Your task to perform on an android device: check battery use Image 0: 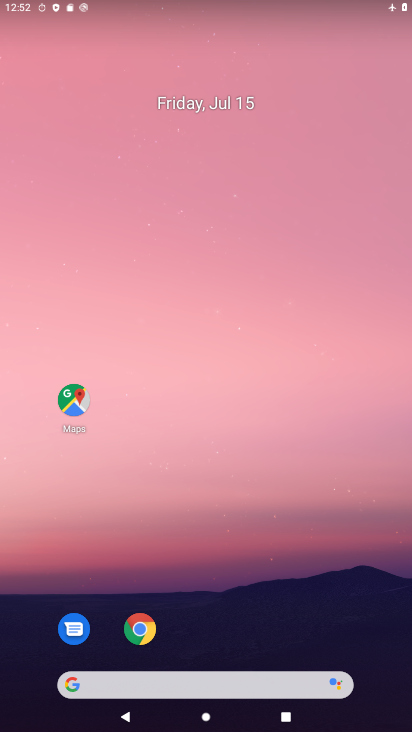
Step 0: drag from (215, 625) to (180, 124)
Your task to perform on an android device: check battery use Image 1: 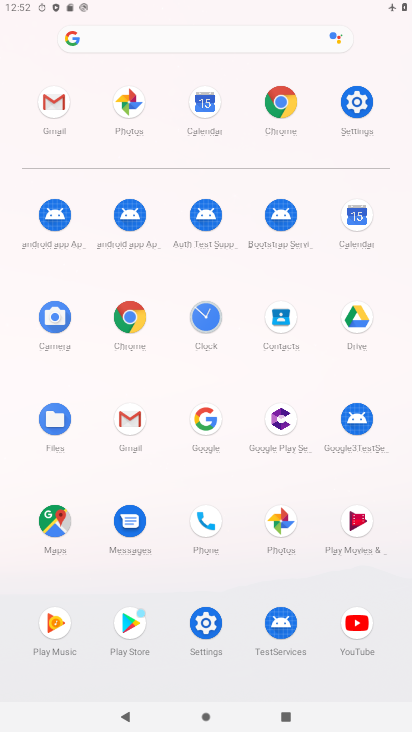
Step 1: click (201, 636)
Your task to perform on an android device: check battery use Image 2: 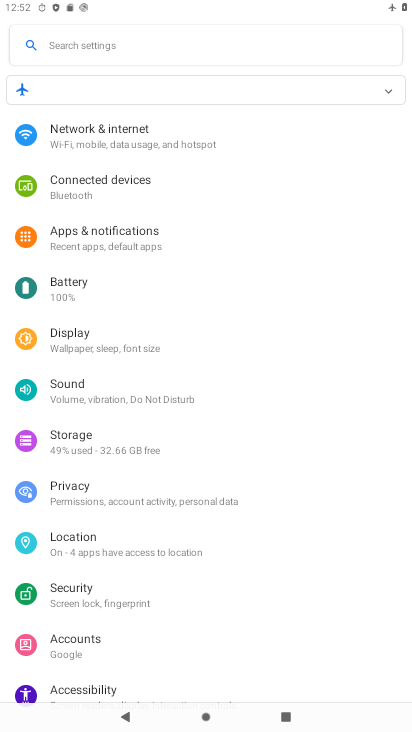
Step 2: click (88, 293)
Your task to perform on an android device: check battery use Image 3: 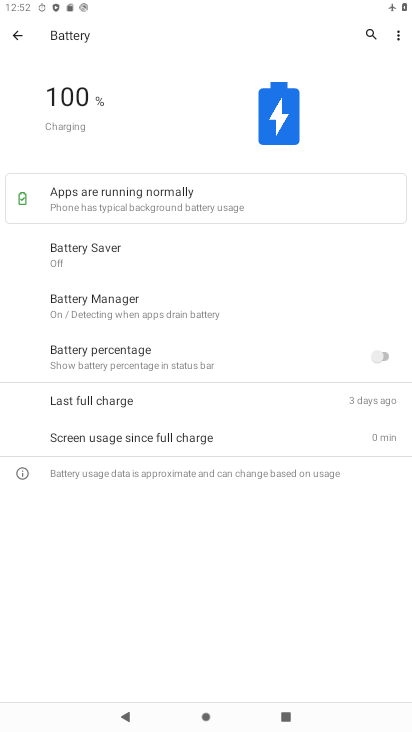
Step 3: click (399, 44)
Your task to perform on an android device: check battery use Image 4: 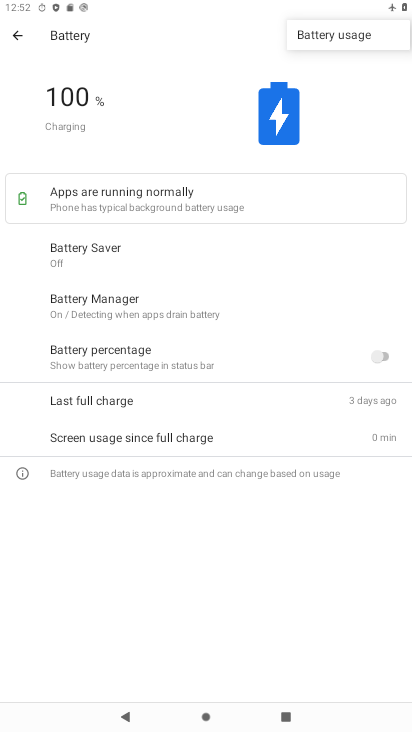
Step 4: click (350, 29)
Your task to perform on an android device: check battery use Image 5: 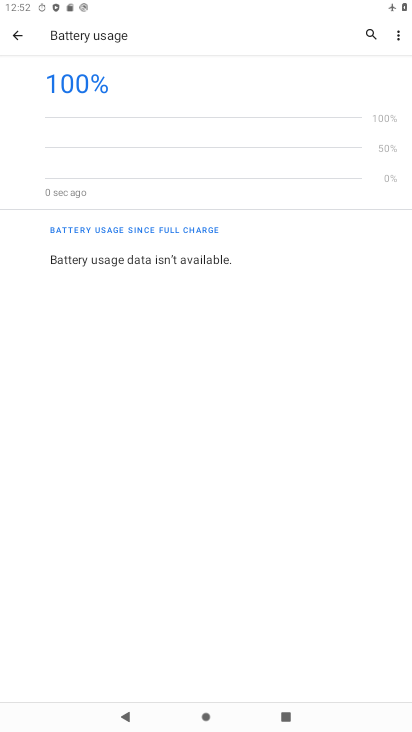
Step 5: task complete